Your task to perform on an android device: Google the capital of Ecuador Image 0: 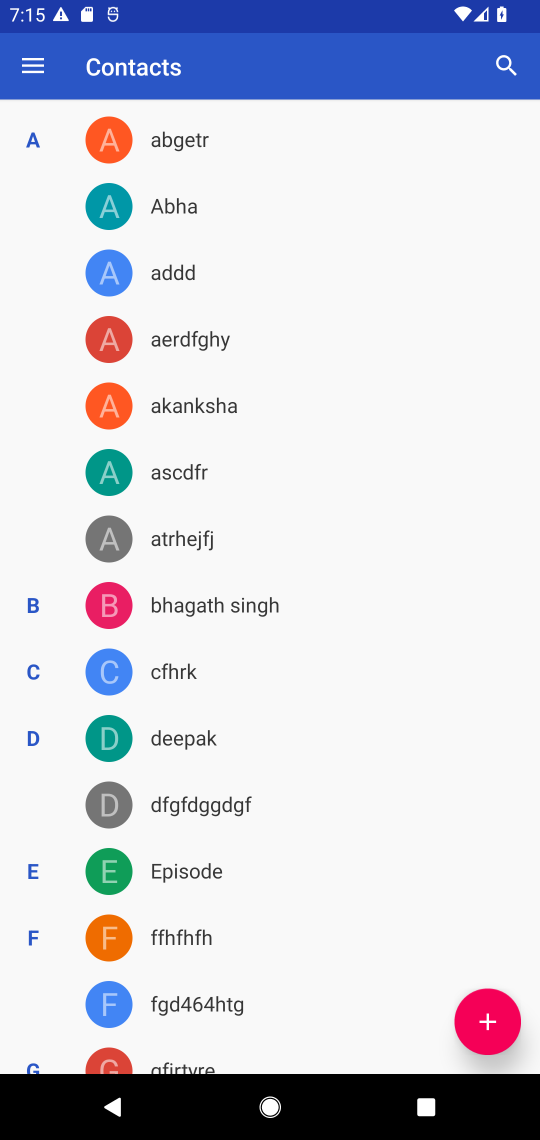
Step 0: press home button
Your task to perform on an android device: Google the capital of Ecuador Image 1: 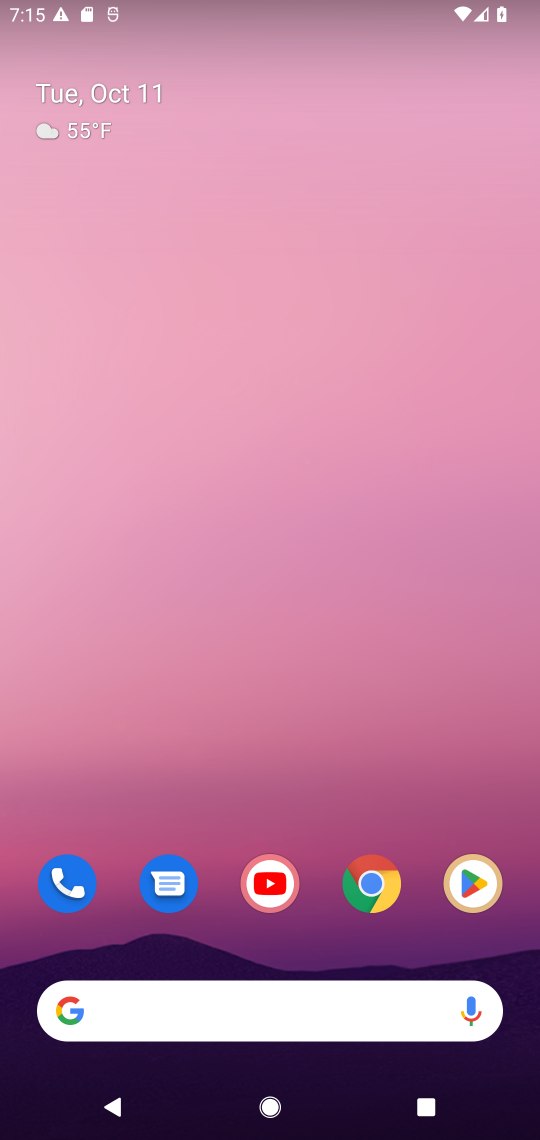
Step 1: drag from (365, 753) to (347, 36)
Your task to perform on an android device: Google the capital of Ecuador Image 2: 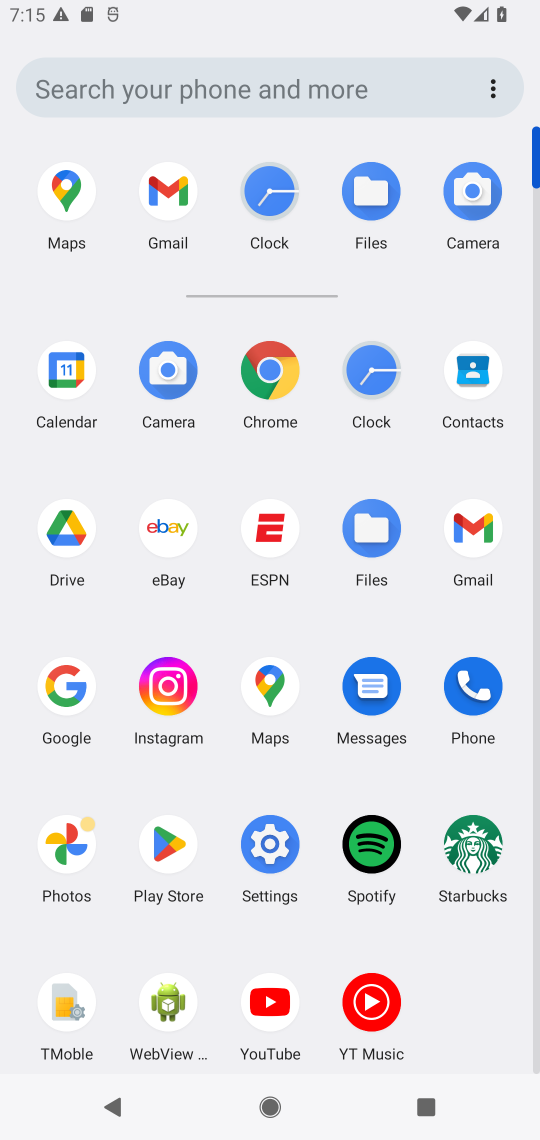
Step 2: click (260, 362)
Your task to perform on an android device: Google the capital of Ecuador Image 3: 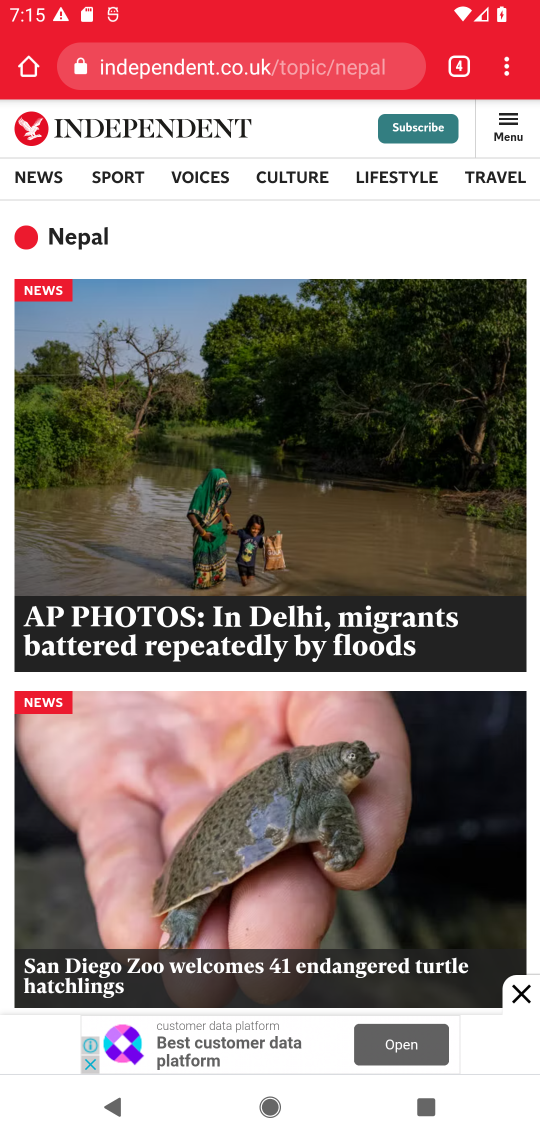
Step 3: click (319, 64)
Your task to perform on an android device: Google the capital of Ecuador Image 4: 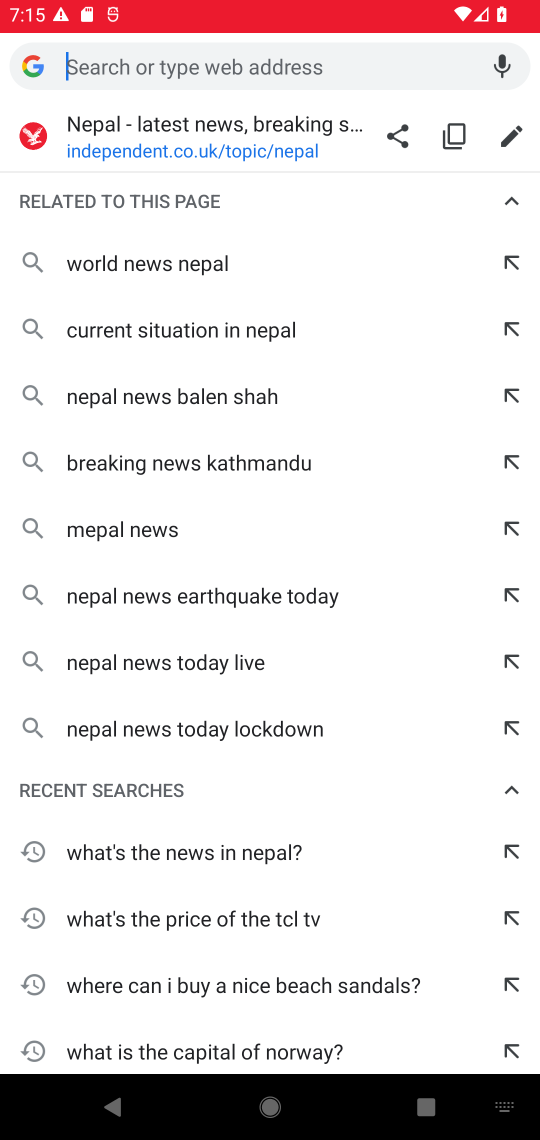
Step 4: type "the capital of Ecuador"
Your task to perform on an android device: Google the capital of Ecuador Image 5: 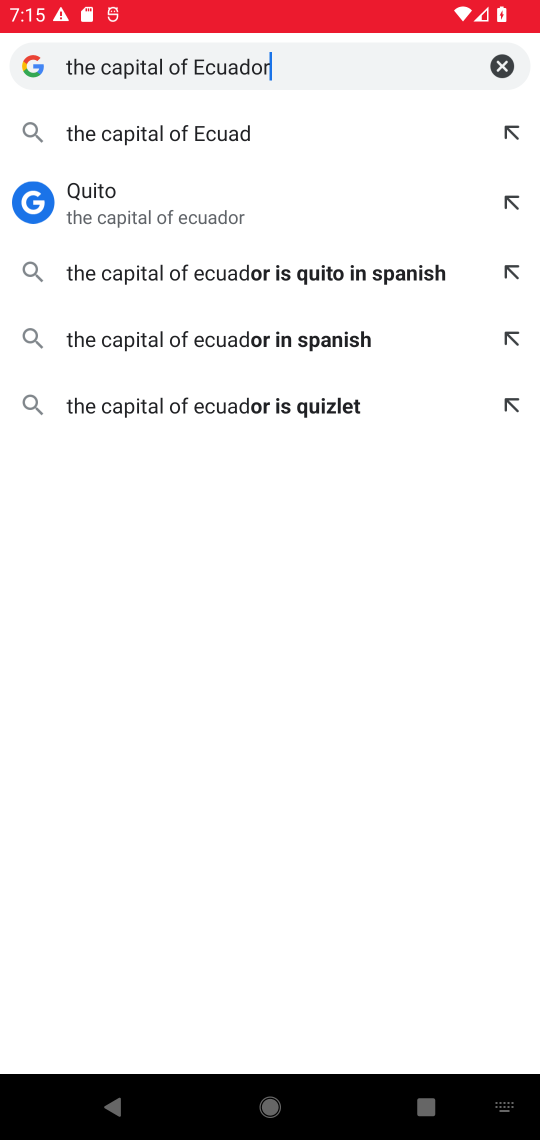
Step 5: press enter
Your task to perform on an android device: Google the capital of Ecuador Image 6: 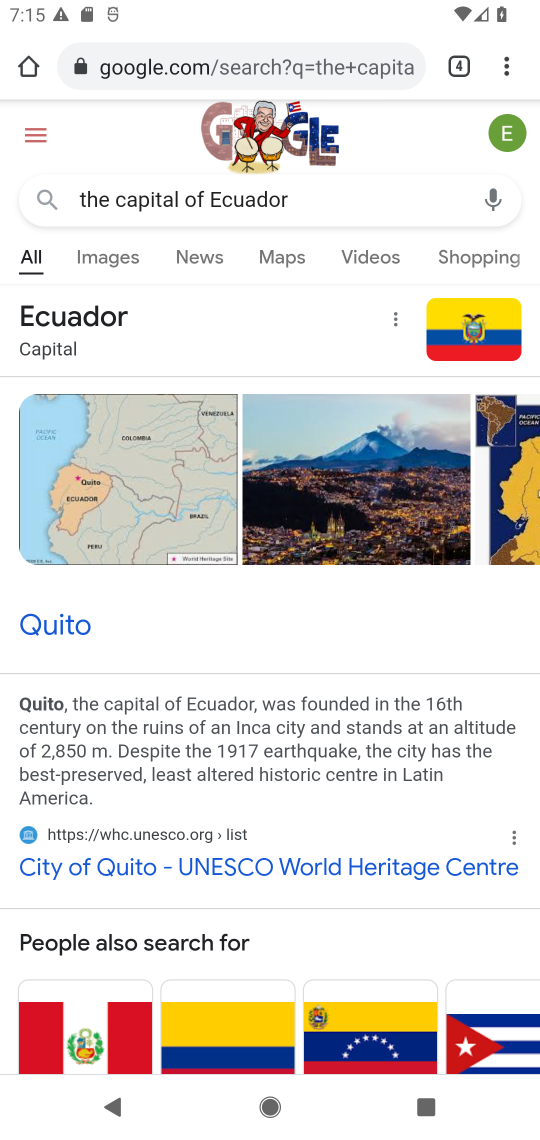
Step 6: task complete